Your task to perform on an android device: turn off priority inbox in the gmail app Image 0: 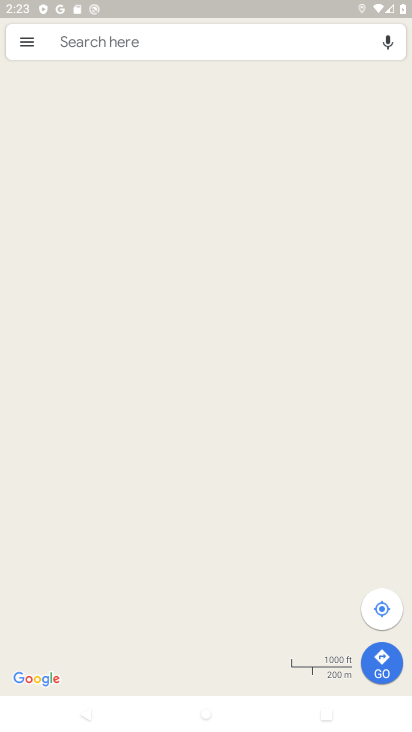
Step 0: press home button
Your task to perform on an android device: turn off priority inbox in the gmail app Image 1: 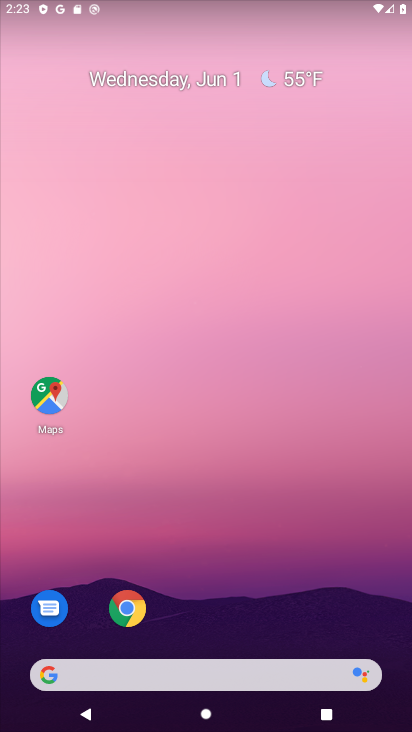
Step 1: drag from (220, 574) to (224, 40)
Your task to perform on an android device: turn off priority inbox in the gmail app Image 2: 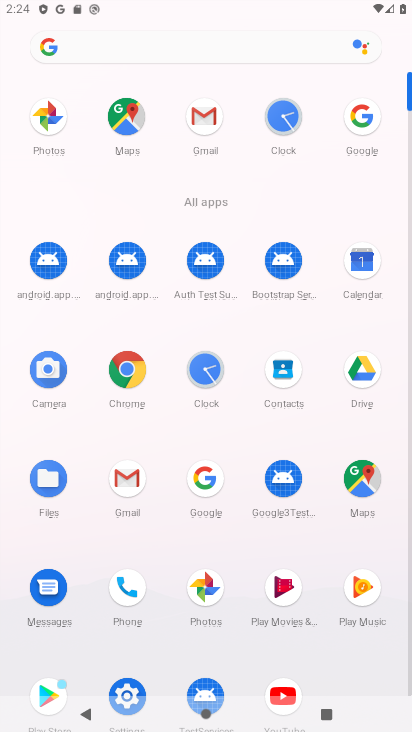
Step 2: click (118, 476)
Your task to perform on an android device: turn off priority inbox in the gmail app Image 3: 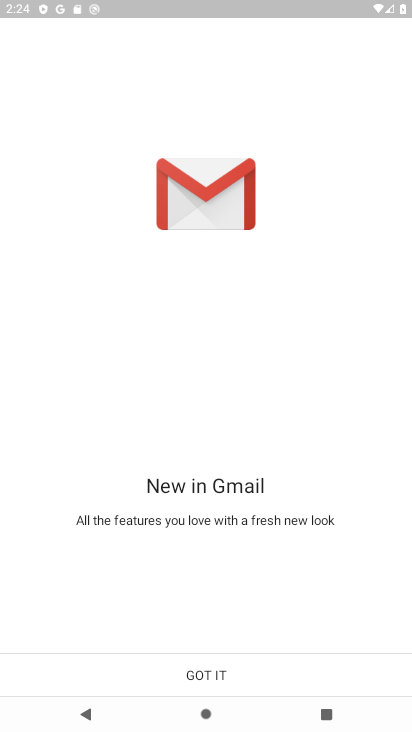
Step 3: click (178, 668)
Your task to perform on an android device: turn off priority inbox in the gmail app Image 4: 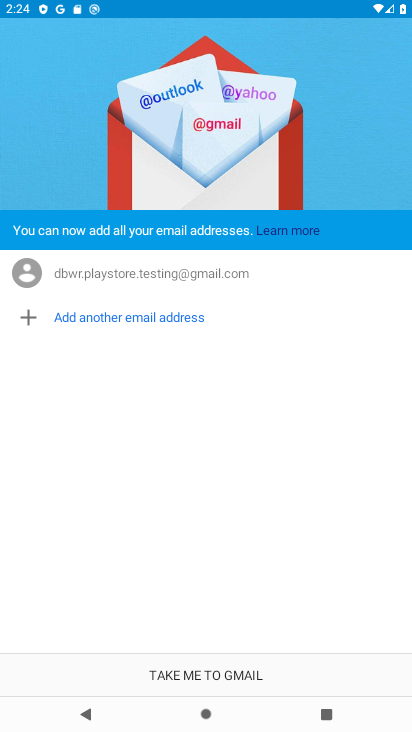
Step 4: click (195, 675)
Your task to perform on an android device: turn off priority inbox in the gmail app Image 5: 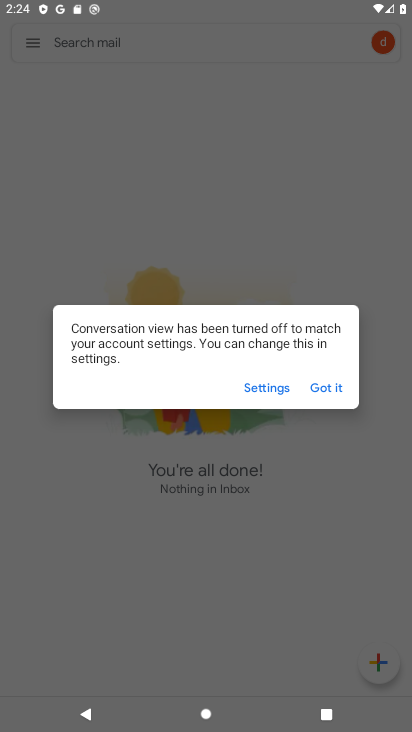
Step 5: click (323, 391)
Your task to perform on an android device: turn off priority inbox in the gmail app Image 6: 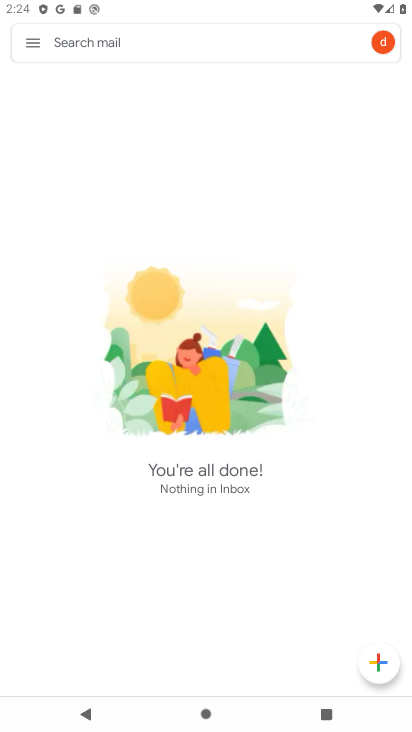
Step 6: click (33, 45)
Your task to perform on an android device: turn off priority inbox in the gmail app Image 7: 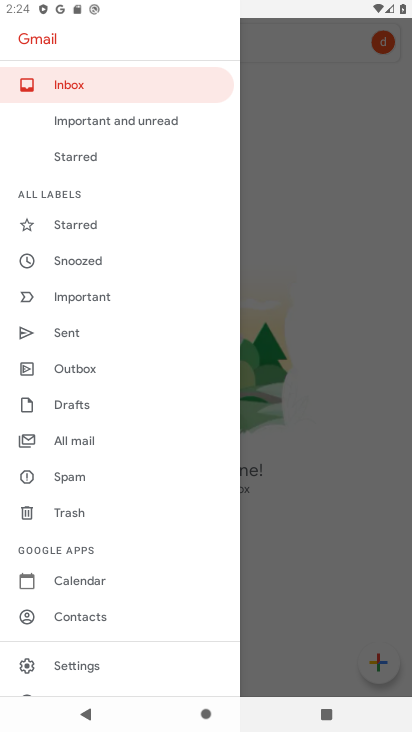
Step 7: click (47, 650)
Your task to perform on an android device: turn off priority inbox in the gmail app Image 8: 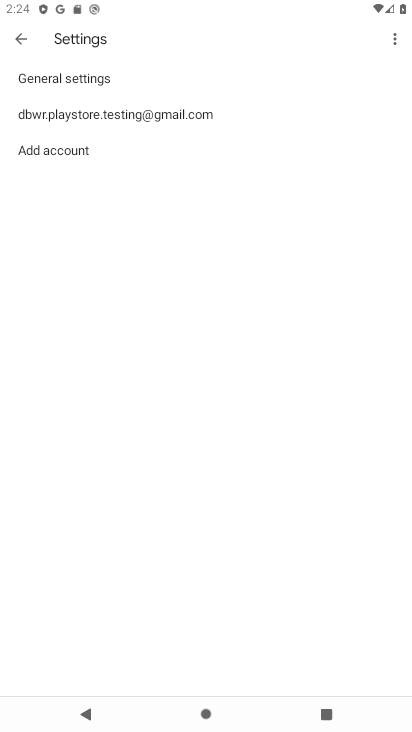
Step 8: click (126, 119)
Your task to perform on an android device: turn off priority inbox in the gmail app Image 9: 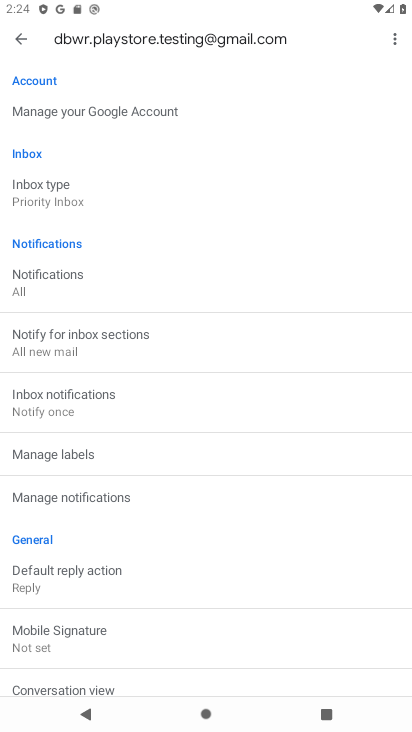
Step 9: click (62, 206)
Your task to perform on an android device: turn off priority inbox in the gmail app Image 10: 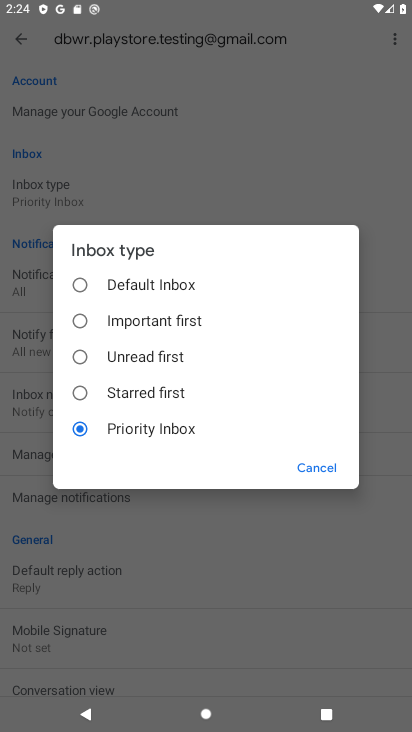
Step 10: click (140, 284)
Your task to perform on an android device: turn off priority inbox in the gmail app Image 11: 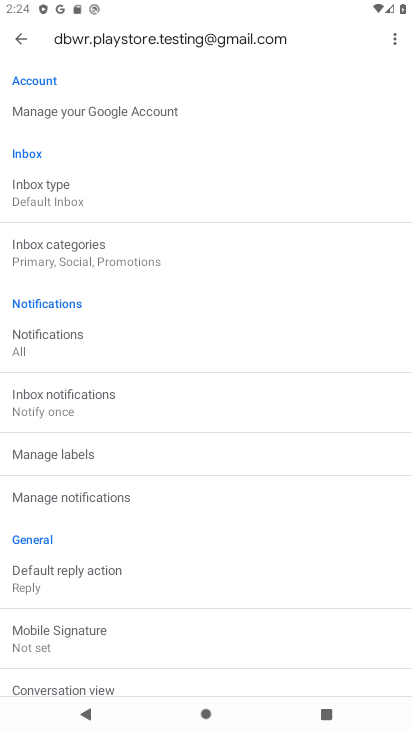
Step 11: task complete